Your task to perform on an android device: remove spam from my inbox in the gmail app Image 0: 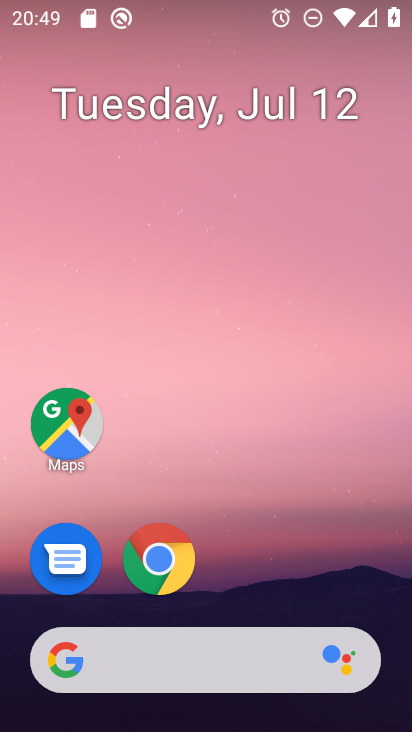
Step 0: drag from (340, 593) to (368, 231)
Your task to perform on an android device: remove spam from my inbox in the gmail app Image 1: 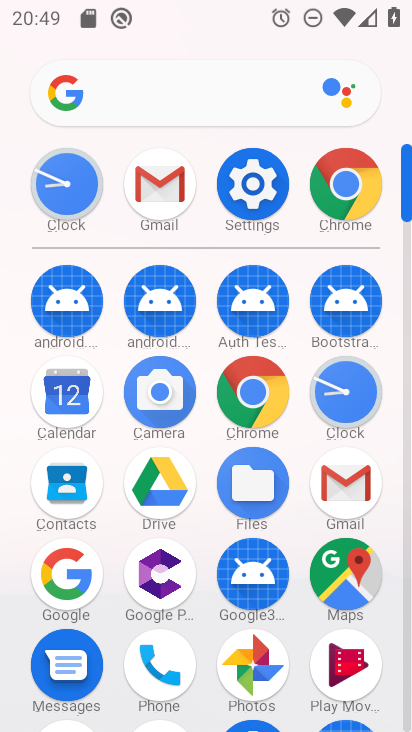
Step 1: click (360, 484)
Your task to perform on an android device: remove spam from my inbox in the gmail app Image 2: 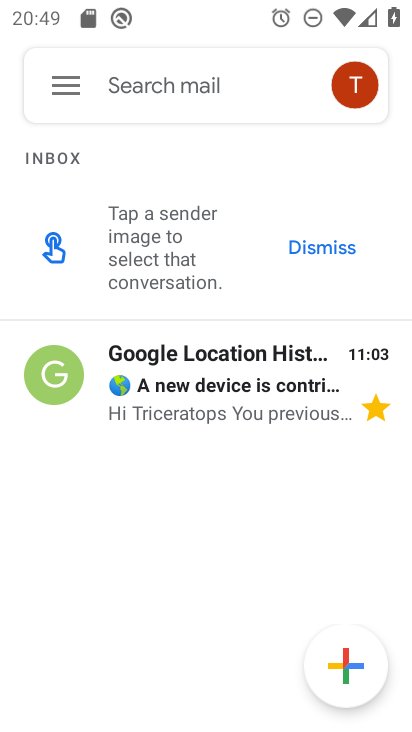
Step 2: click (64, 78)
Your task to perform on an android device: remove spam from my inbox in the gmail app Image 3: 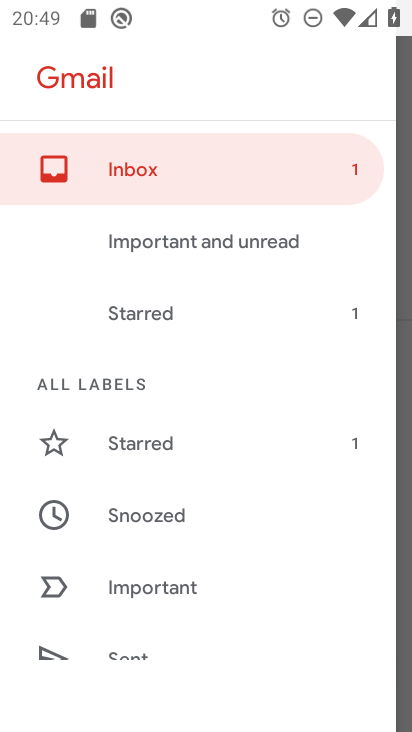
Step 3: drag from (222, 403) to (248, 306)
Your task to perform on an android device: remove spam from my inbox in the gmail app Image 4: 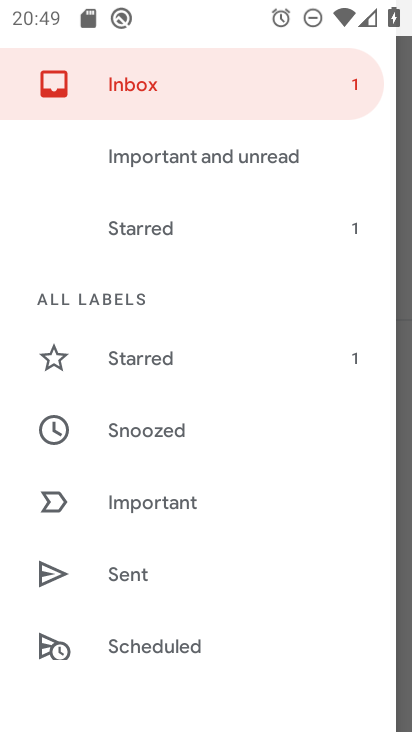
Step 4: drag from (270, 465) to (284, 330)
Your task to perform on an android device: remove spam from my inbox in the gmail app Image 5: 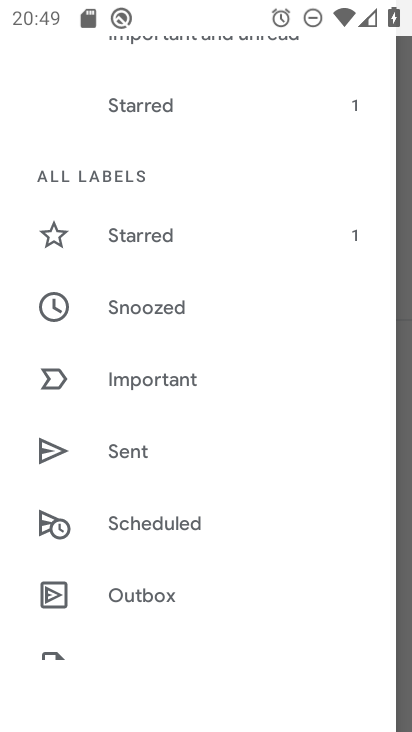
Step 5: drag from (285, 487) to (289, 306)
Your task to perform on an android device: remove spam from my inbox in the gmail app Image 6: 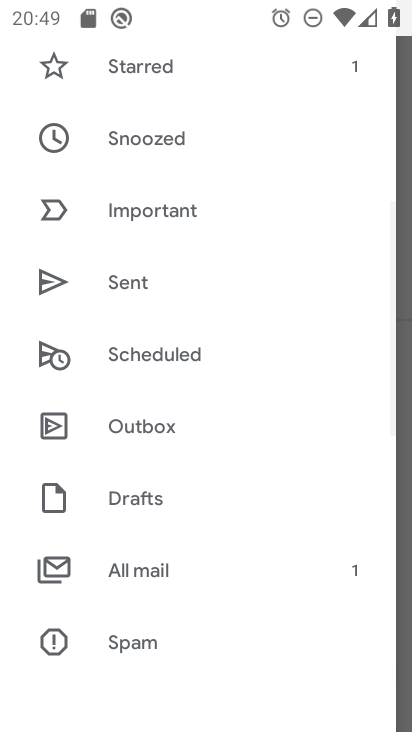
Step 6: drag from (289, 469) to (293, 351)
Your task to perform on an android device: remove spam from my inbox in the gmail app Image 7: 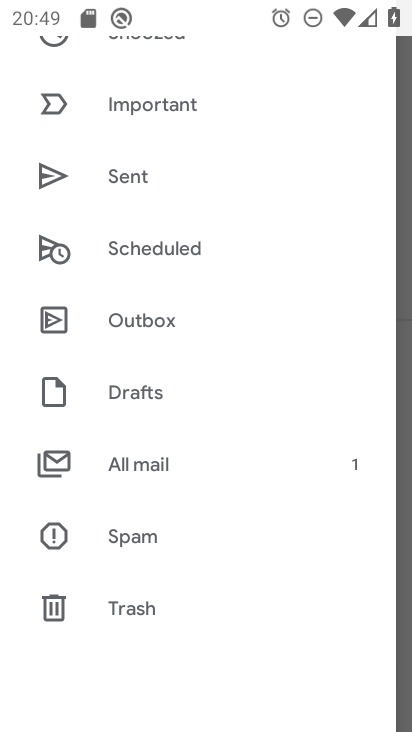
Step 7: drag from (283, 524) to (284, 387)
Your task to perform on an android device: remove spam from my inbox in the gmail app Image 8: 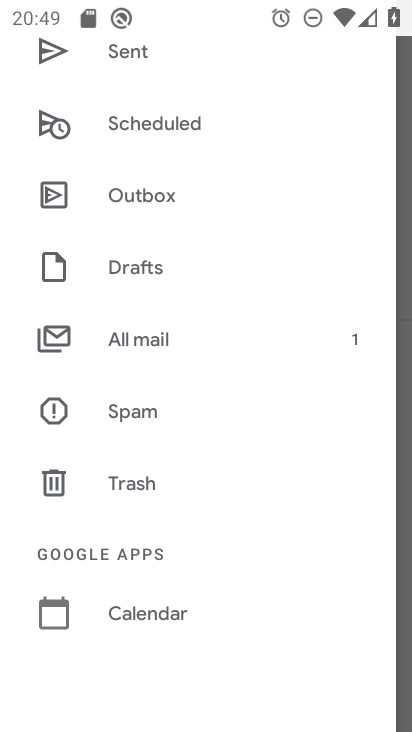
Step 8: click (257, 417)
Your task to perform on an android device: remove spam from my inbox in the gmail app Image 9: 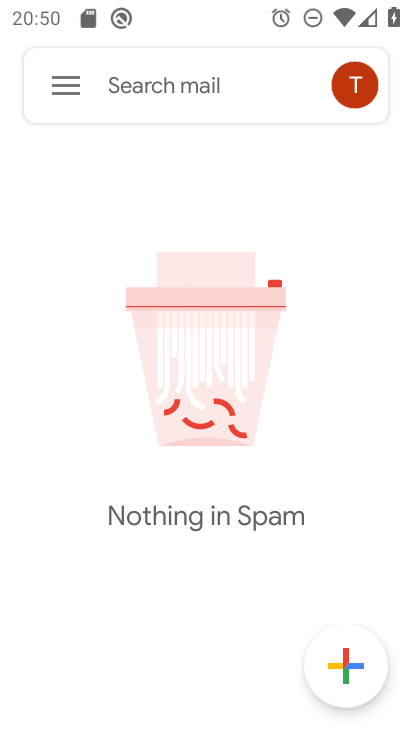
Step 9: task complete